Your task to perform on an android device: How do I get to the nearest T-Mobile Store? Image 0: 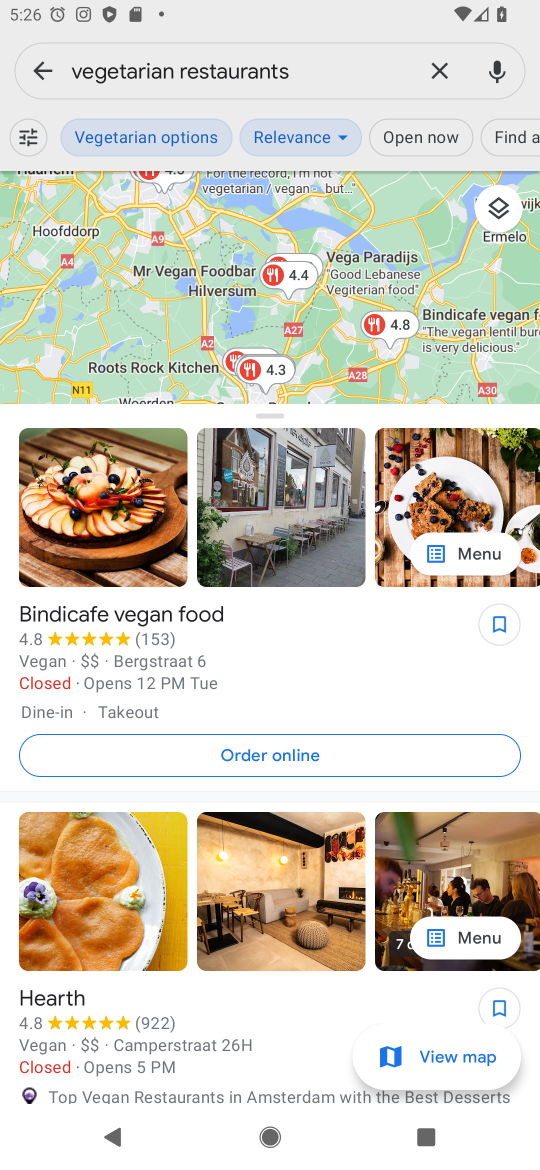
Step 0: press home button
Your task to perform on an android device: How do I get to the nearest T-Mobile Store? Image 1: 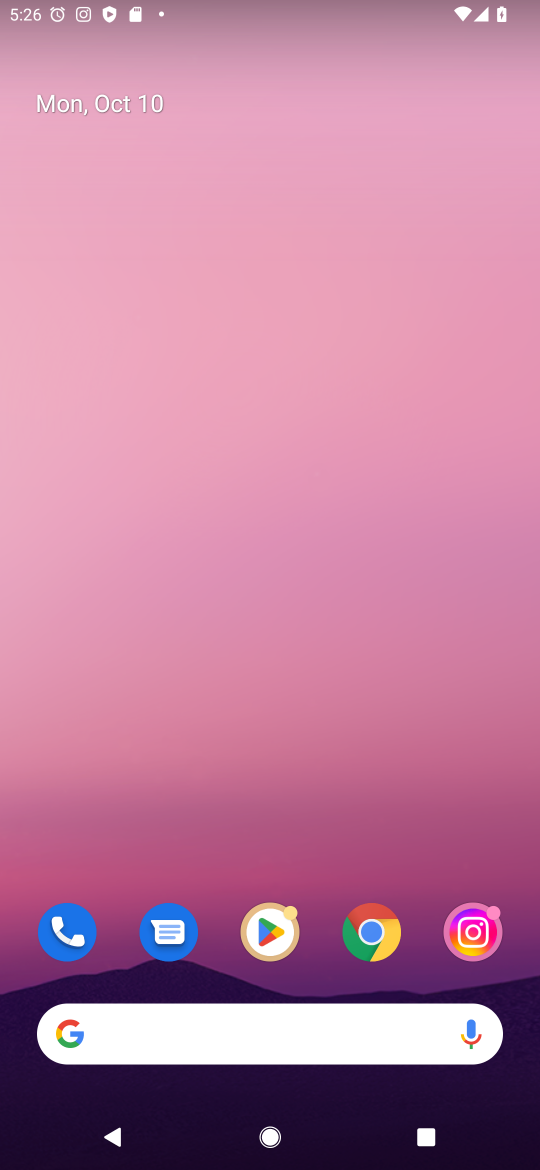
Step 1: click (303, 1038)
Your task to perform on an android device: How do I get to the nearest T-Mobile Store? Image 2: 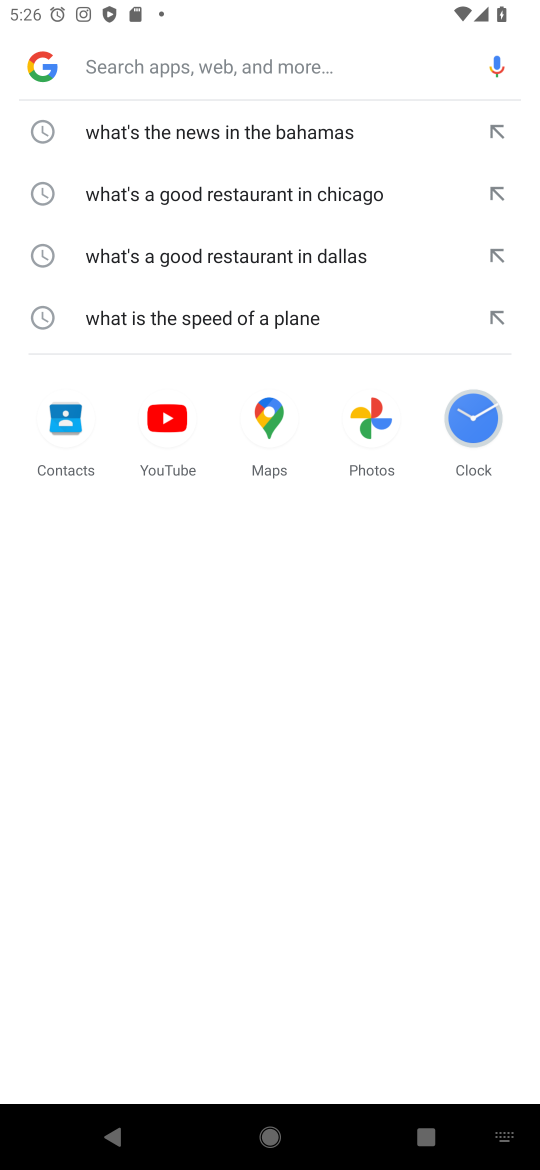
Step 2: press enter
Your task to perform on an android device: How do I get to the nearest T-Mobile Store? Image 3: 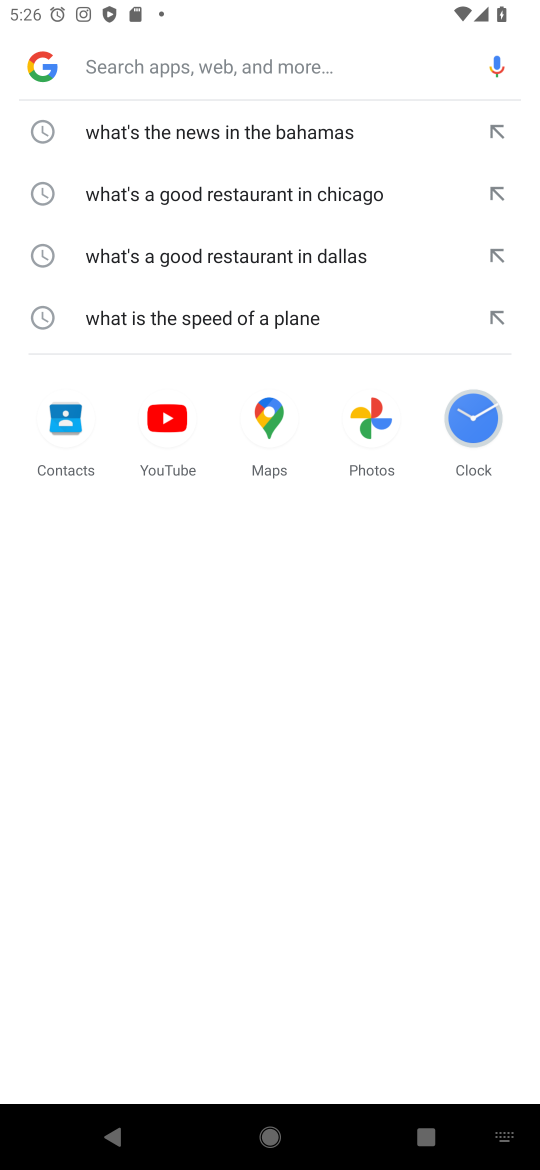
Step 3: type "How do I get to the nearest T-Mobile Store"
Your task to perform on an android device: How do I get to the nearest T-Mobile Store? Image 4: 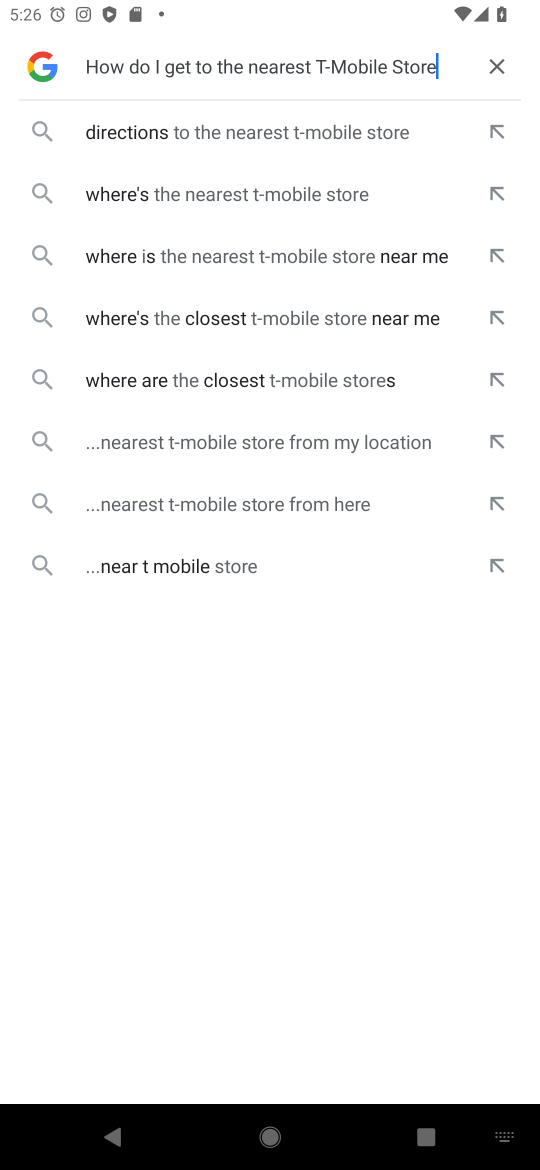
Step 4: press enter
Your task to perform on an android device: How do I get to the nearest T-Mobile Store? Image 5: 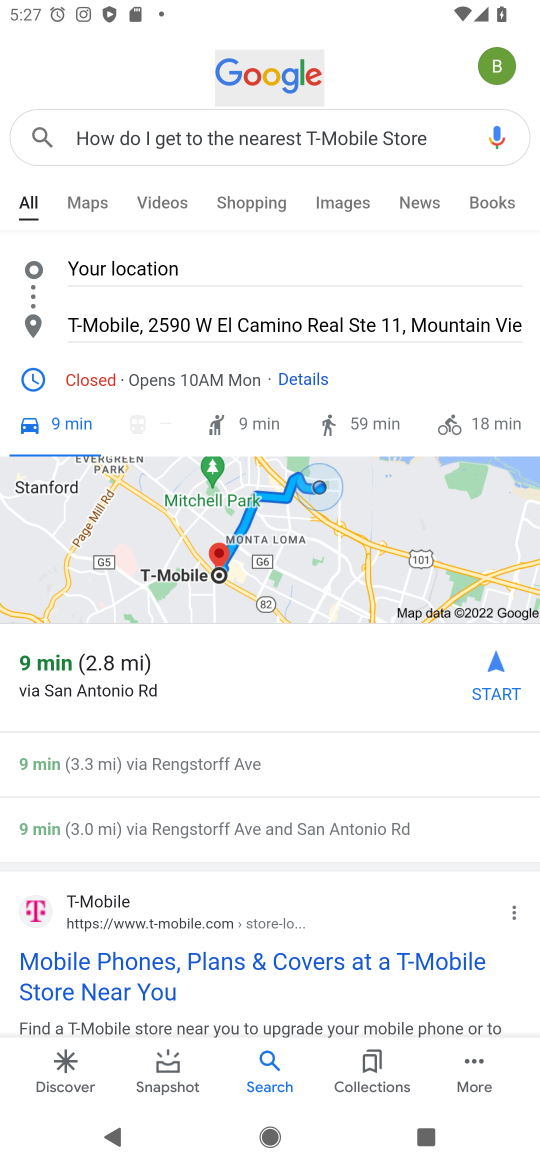
Step 5: task complete